Your task to perform on an android device: turn smart compose on in the gmail app Image 0: 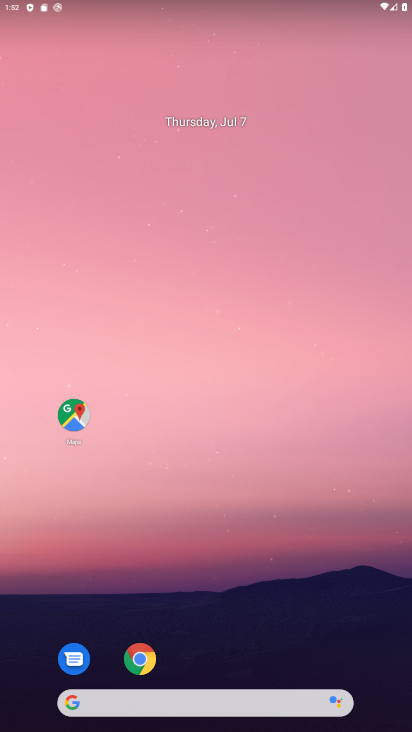
Step 0: drag from (207, 678) to (223, 45)
Your task to perform on an android device: turn smart compose on in the gmail app Image 1: 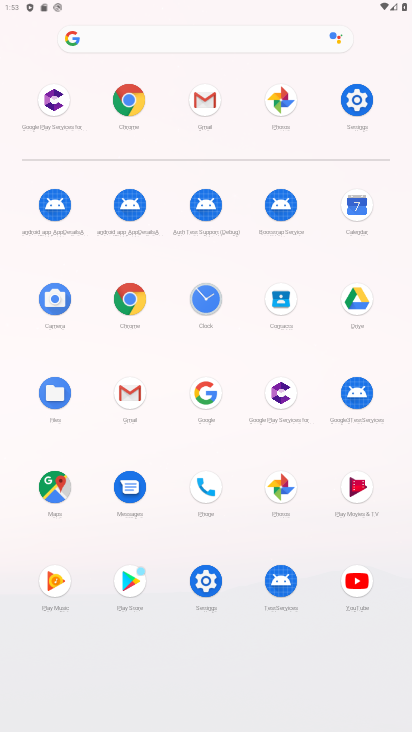
Step 1: click (132, 405)
Your task to perform on an android device: turn smart compose on in the gmail app Image 2: 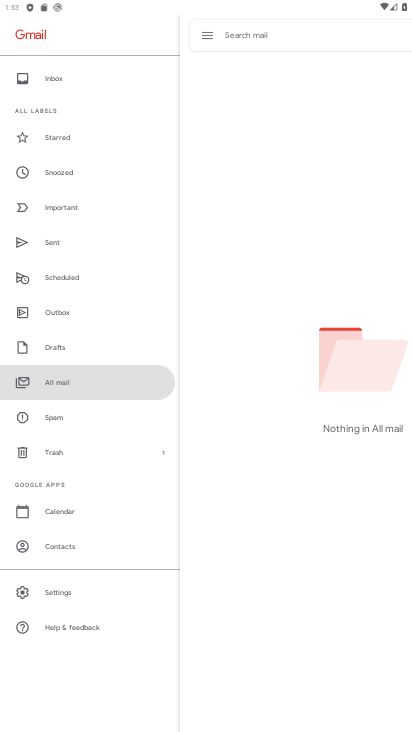
Step 2: press home button
Your task to perform on an android device: turn smart compose on in the gmail app Image 3: 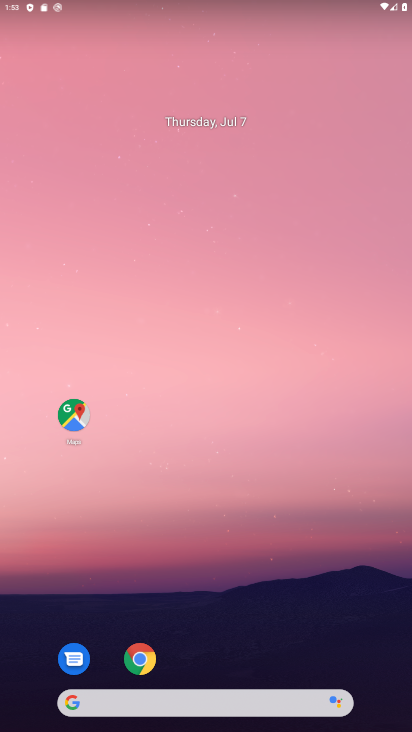
Step 3: drag from (199, 670) to (278, 111)
Your task to perform on an android device: turn smart compose on in the gmail app Image 4: 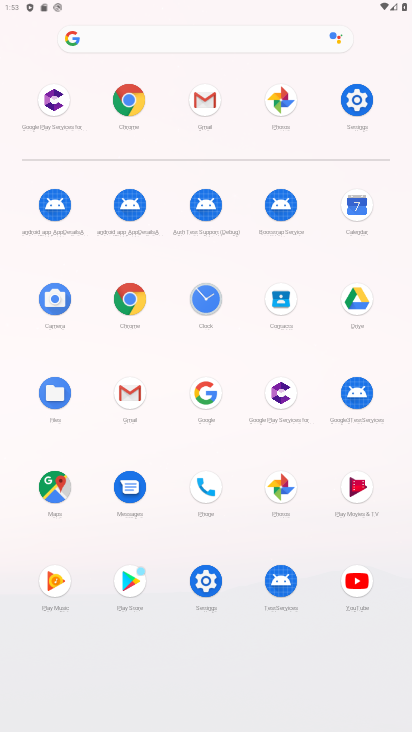
Step 4: click (209, 107)
Your task to perform on an android device: turn smart compose on in the gmail app Image 5: 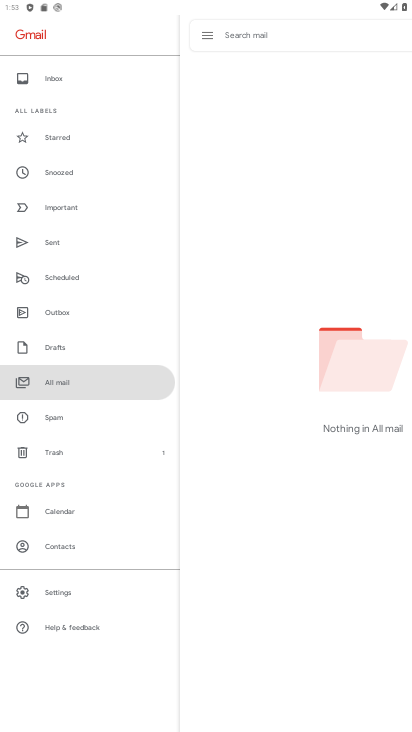
Step 5: click (208, 40)
Your task to perform on an android device: turn smart compose on in the gmail app Image 6: 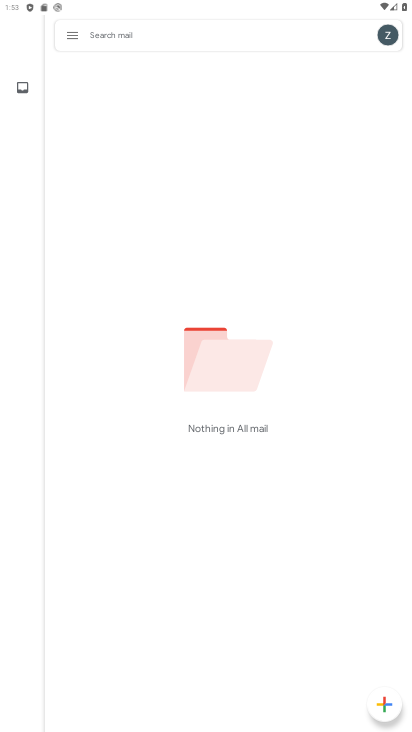
Step 6: click (72, 44)
Your task to perform on an android device: turn smart compose on in the gmail app Image 7: 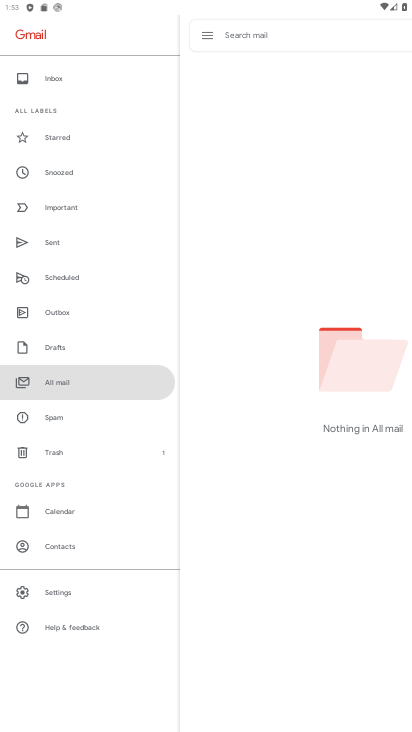
Step 7: click (71, 596)
Your task to perform on an android device: turn smart compose on in the gmail app Image 8: 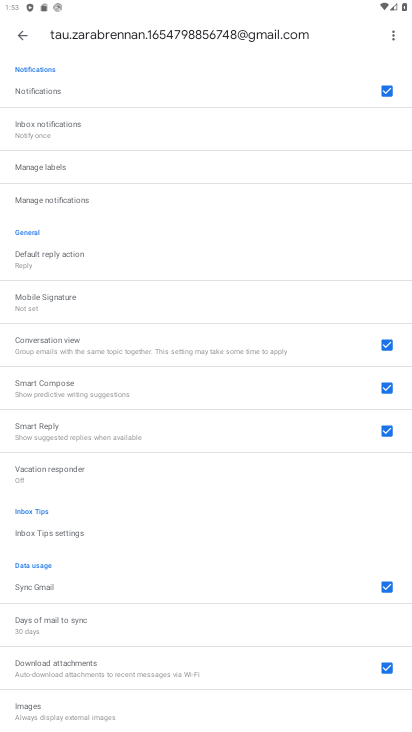
Step 8: task complete